Your task to perform on an android device: Open Google Maps and go to "Timeline" Image 0: 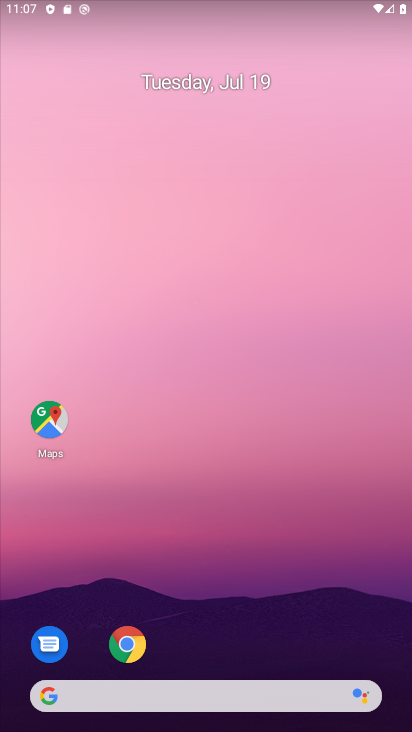
Step 0: press home button
Your task to perform on an android device: Open Google Maps and go to "Timeline" Image 1: 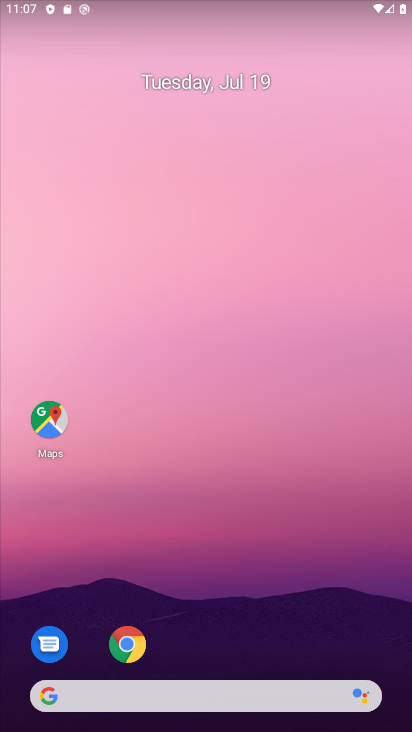
Step 1: drag from (252, 648) to (239, 368)
Your task to perform on an android device: Open Google Maps and go to "Timeline" Image 2: 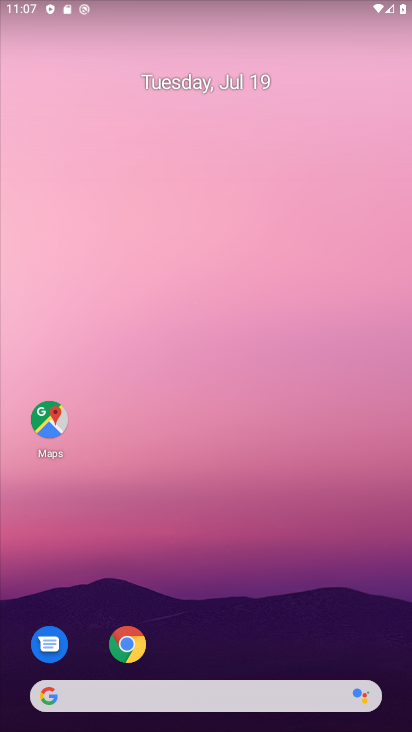
Step 2: click (44, 438)
Your task to perform on an android device: Open Google Maps and go to "Timeline" Image 3: 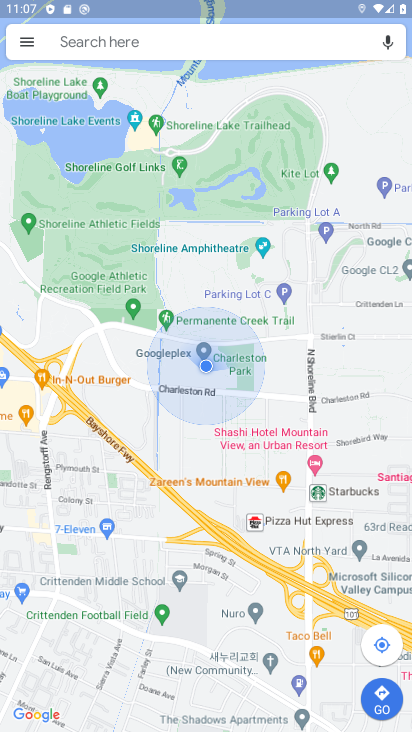
Step 3: click (22, 37)
Your task to perform on an android device: Open Google Maps and go to "Timeline" Image 4: 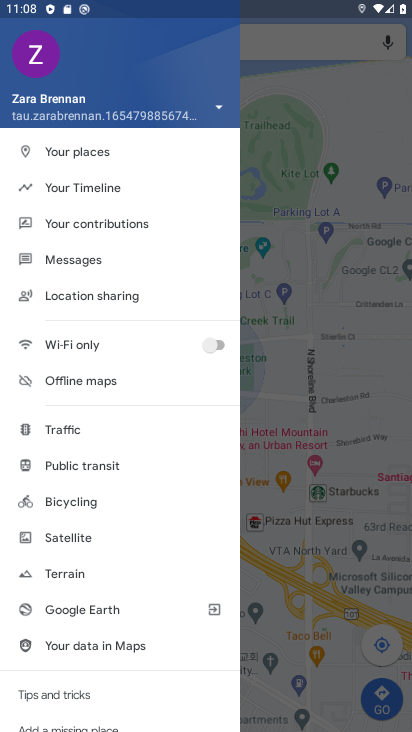
Step 4: drag from (107, 642) to (101, 220)
Your task to perform on an android device: Open Google Maps and go to "Timeline" Image 5: 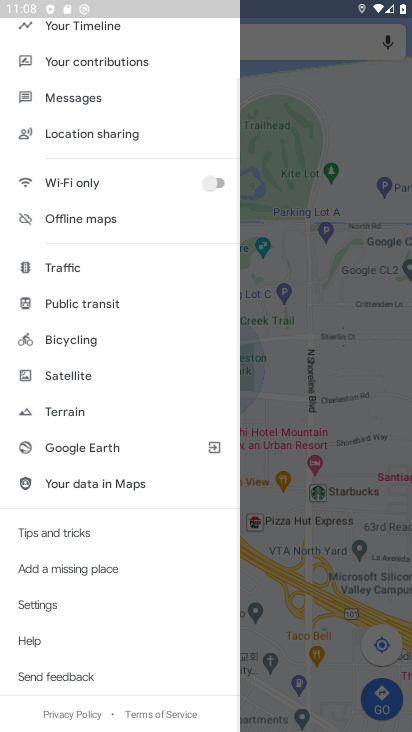
Step 5: click (79, 32)
Your task to perform on an android device: Open Google Maps and go to "Timeline" Image 6: 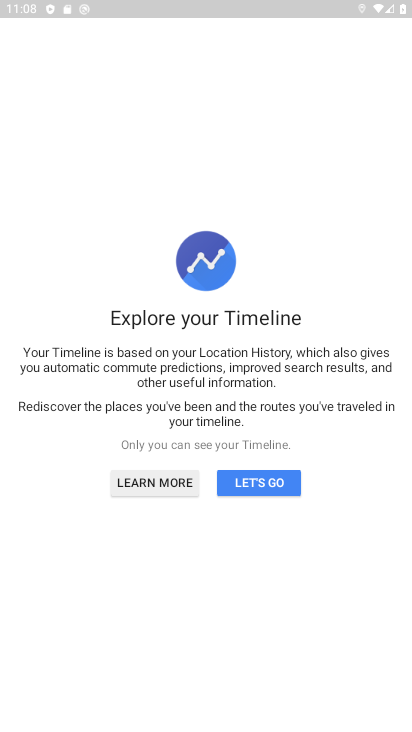
Step 6: click (242, 473)
Your task to perform on an android device: Open Google Maps and go to "Timeline" Image 7: 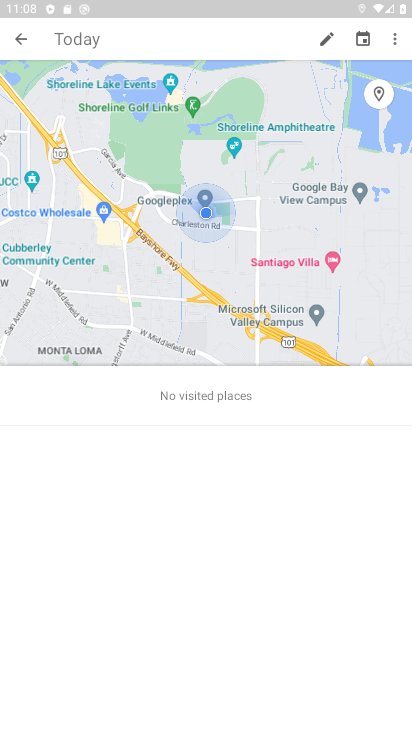
Step 7: task complete